Your task to perform on an android device: Open Yahoo.com Image 0: 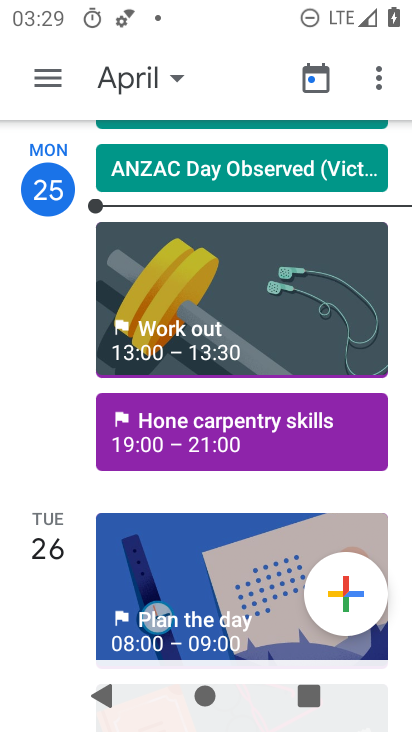
Step 0: press home button
Your task to perform on an android device: Open Yahoo.com Image 1: 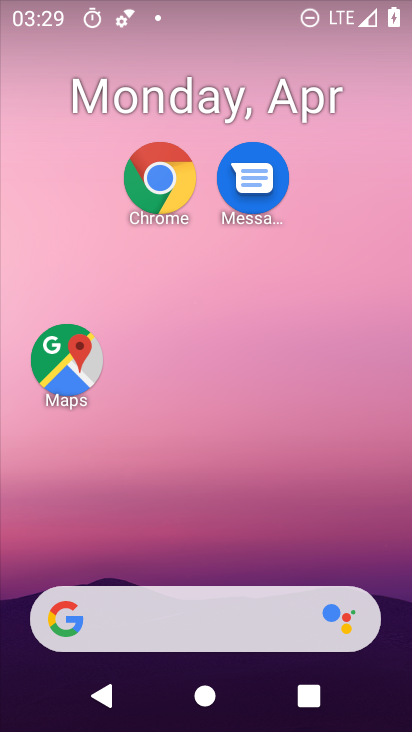
Step 1: drag from (277, 546) to (286, 79)
Your task to perform on an android device: Open Yahoo.com Image 2: 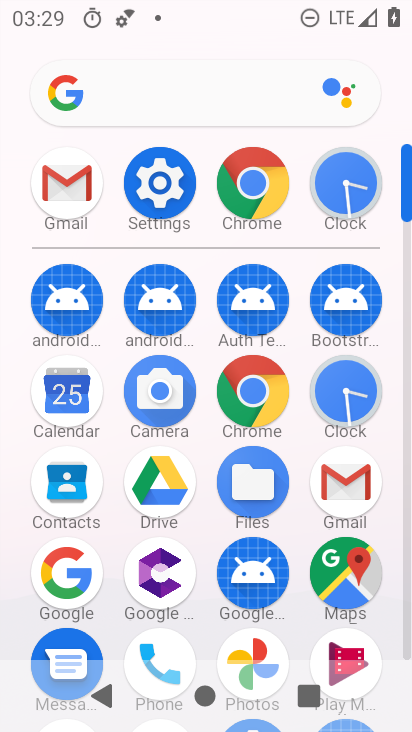
Step 2: click (253, 415)
Your task to perform on an android device: Open Yahoo.com Image 3: 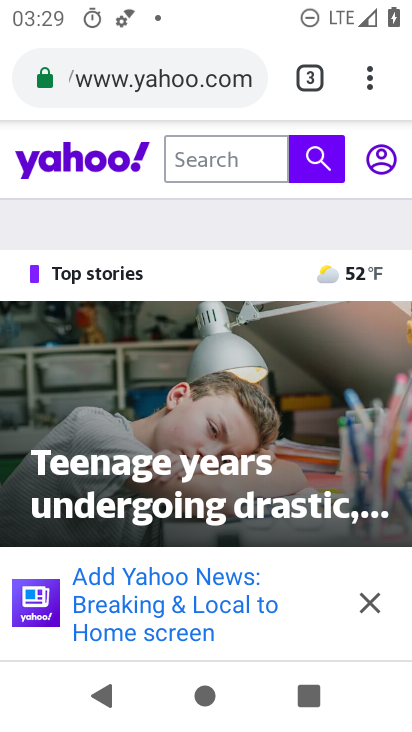
Step 3: task complete